Your task to perform on an android device: Go to Wikipedia Image 0: 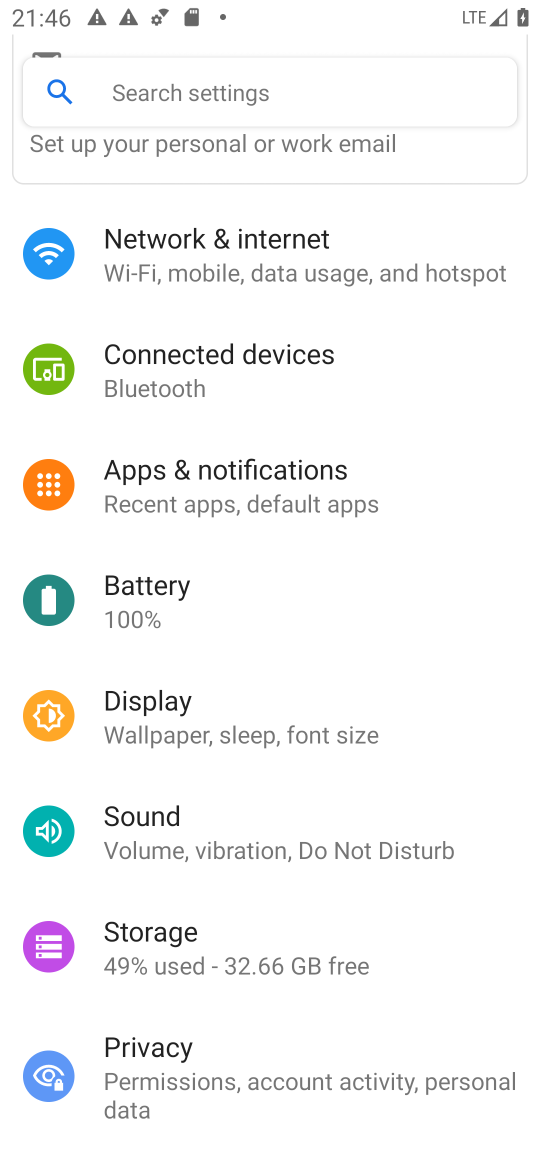
Step 0: press home button
Your task to perform on an android device: Go to Wikipedia Image 1: 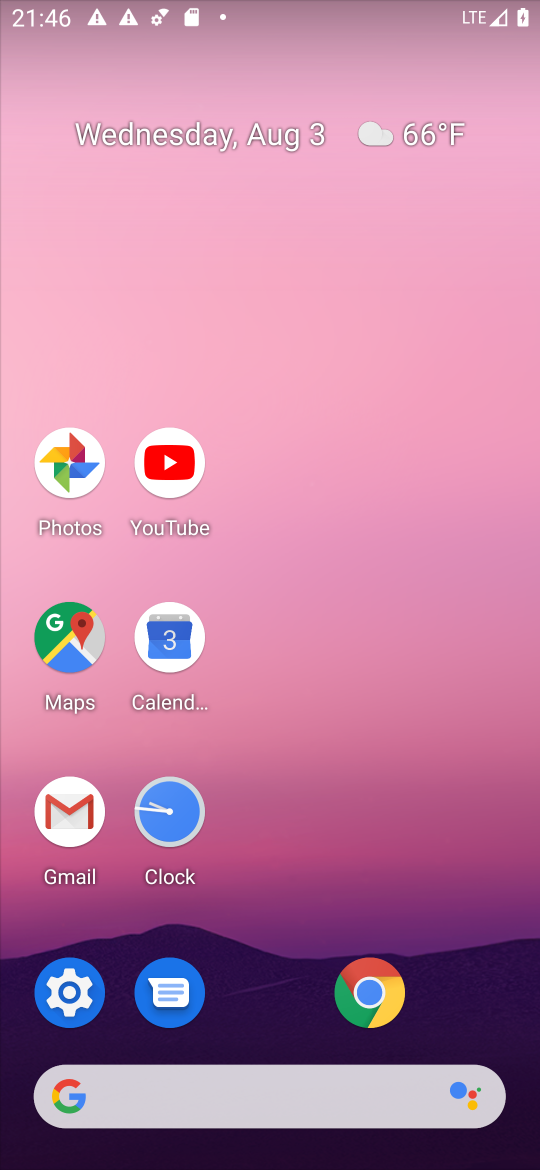
Step 1: click (371, 996)
Your task to perform on an android device: Go to Wikipedia Image 2: 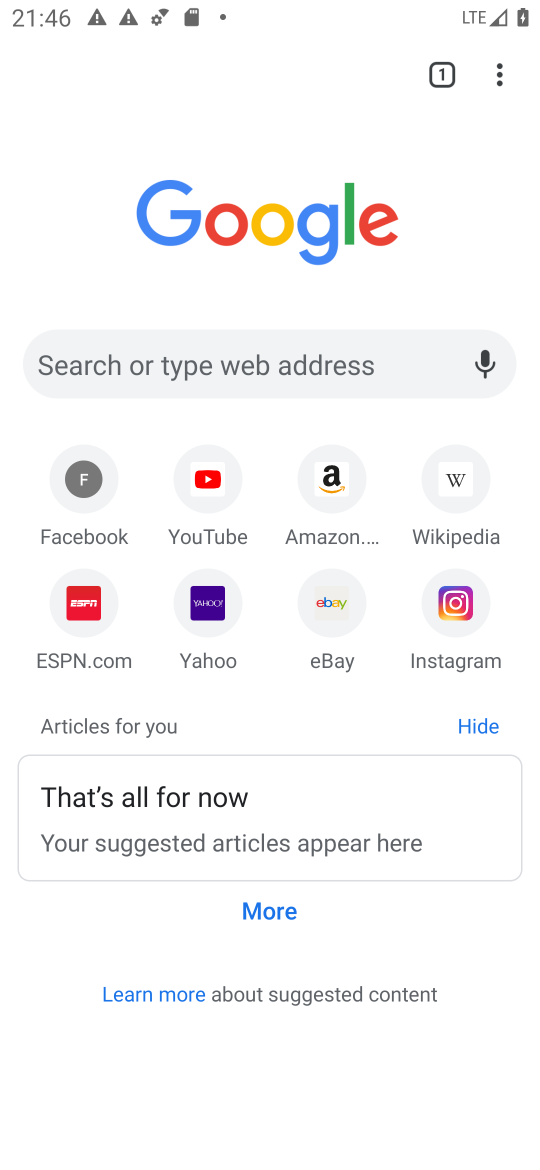
Step 2: click (463, 473)
Your task to perform on an android device: Go to Wikipedia Image 3: 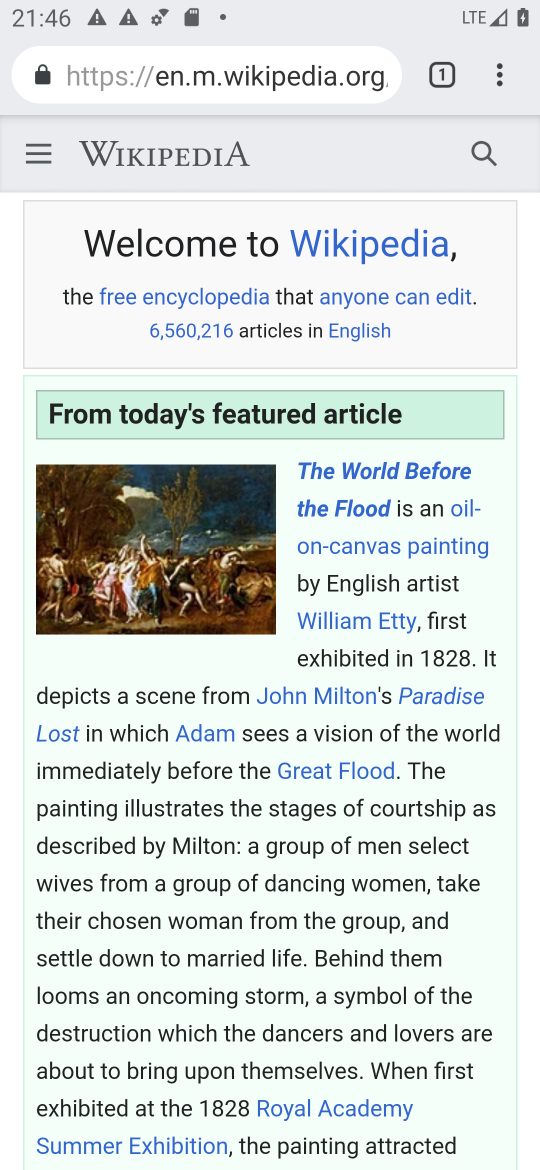
Step 3: task complete